Your task to perform on an android device: Open Chrome and go to settings Image 0: 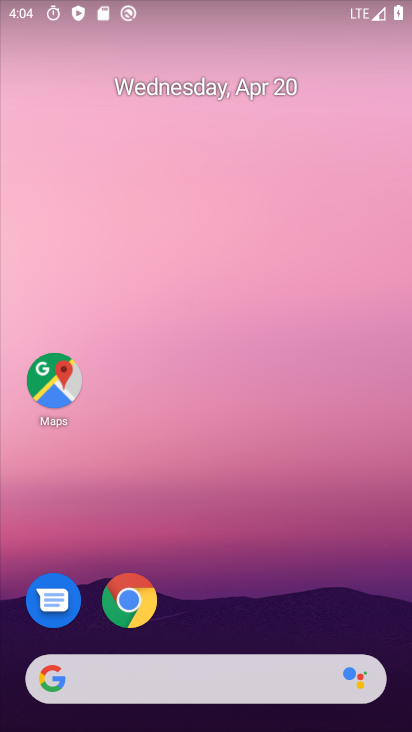
Step 0: drag from (250, 604) to (258, 82)
Your task to perform on an android device: Open Chrome and go to settings Image 1: 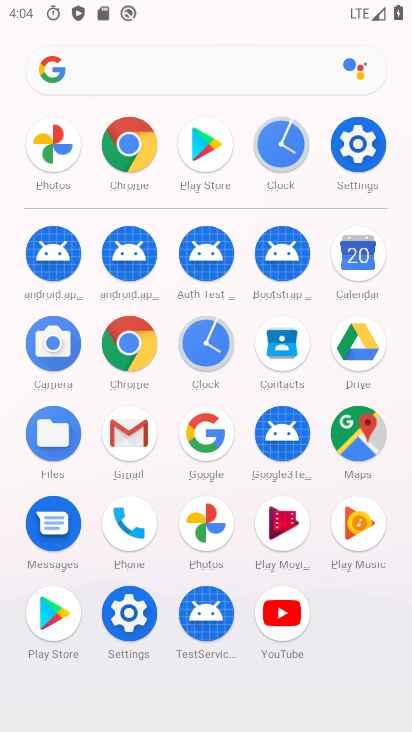
Step 1: click (219, 526)
Your task to perform on an android device: Open Chrome and go to settings Image 2: 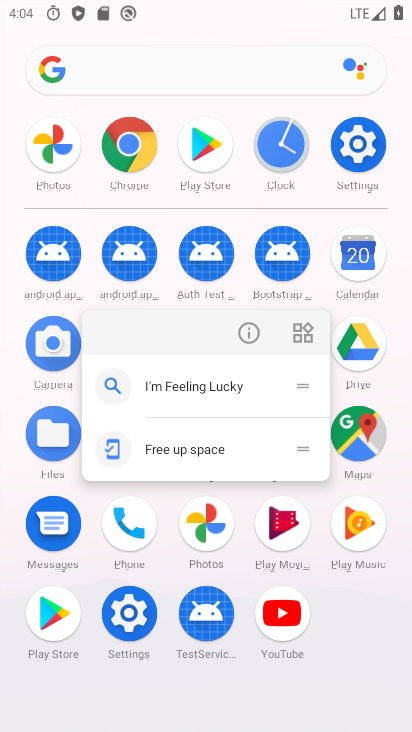
Step 2: click (124, 150)
Your task to perform on an android device: Open Chrome and go to settings Image 3: 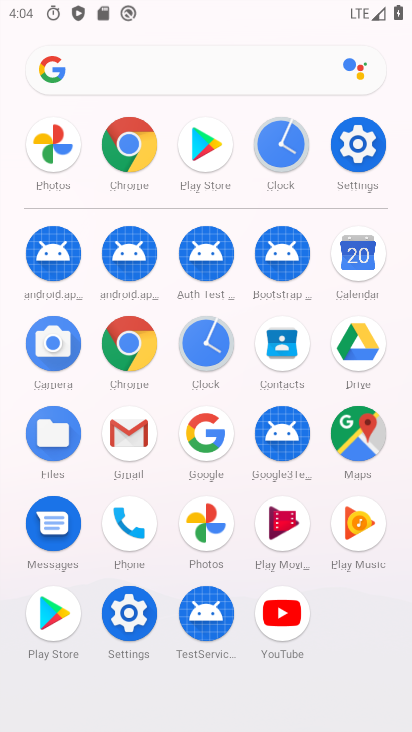
Step 3: click (125, 352)
Your task to perform on an android device: Open Chrome and go to settings Image 4: 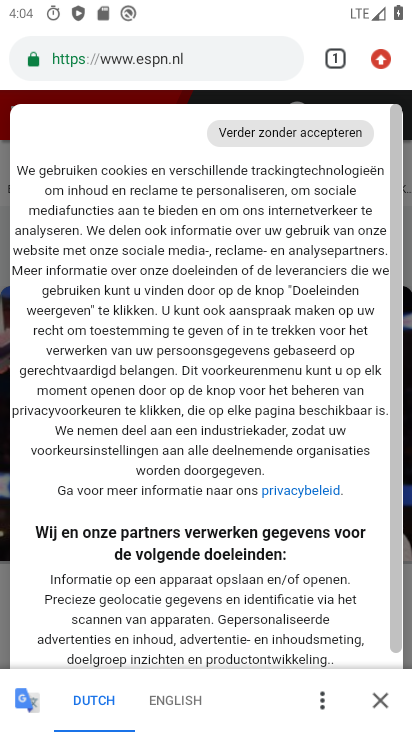
Step 4: task complete